Your task to perform on an android device: Open calendar and show me the second week of next month Image 0: 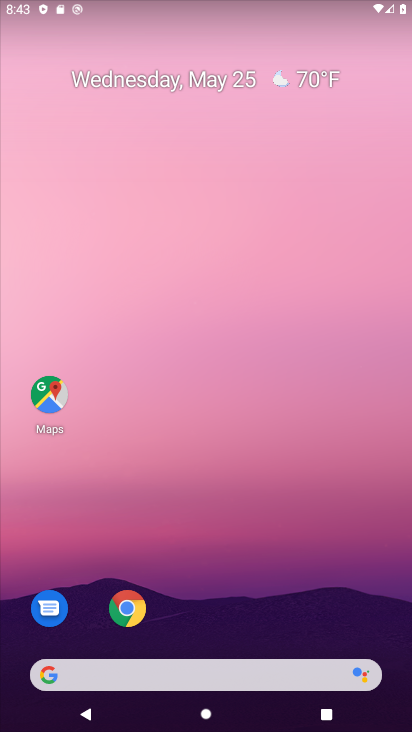
Step 0: drag from (286, 527) to (251, 61)
Your task to perform on an android device: Open calendar and show me the second week of next month Image 1: 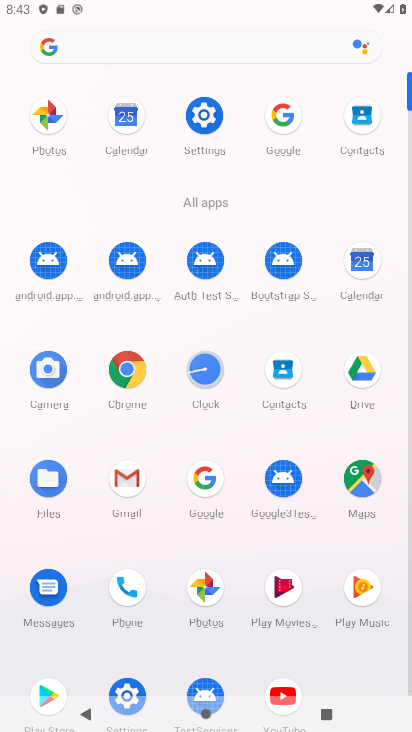
Step 1: click (135, 129)
Your task to perform on an android device: Open calendar and show me the second week of next month Image 2: 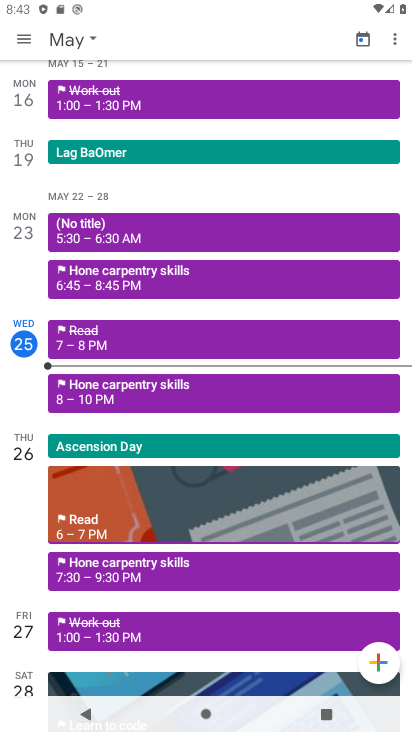
Step 2: click (25, 43)
Your task to perform on an android device: Open calendar and show me the second week of next month Image 3: 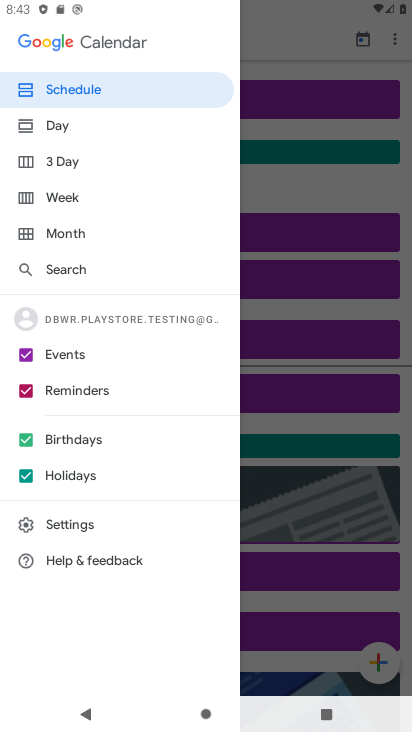
Step 3: click (78, 201)
Your task to perform on an android device: Open calendar and show me the second week of next month Image 4: 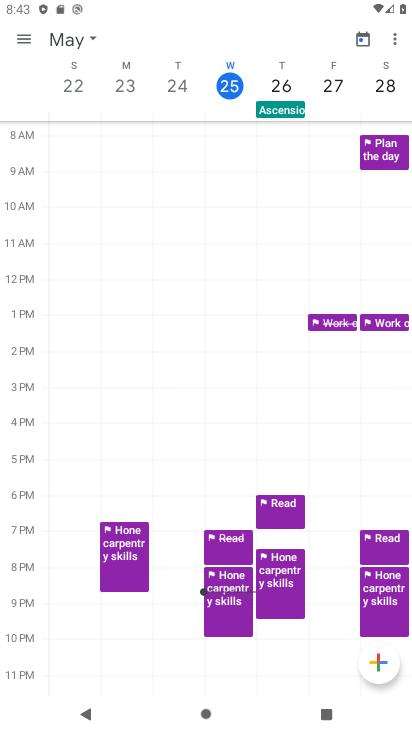
Step 4: click (86, 39)
Your task to perform on an android device: Open calendar and show me the second week of next month Image 5: 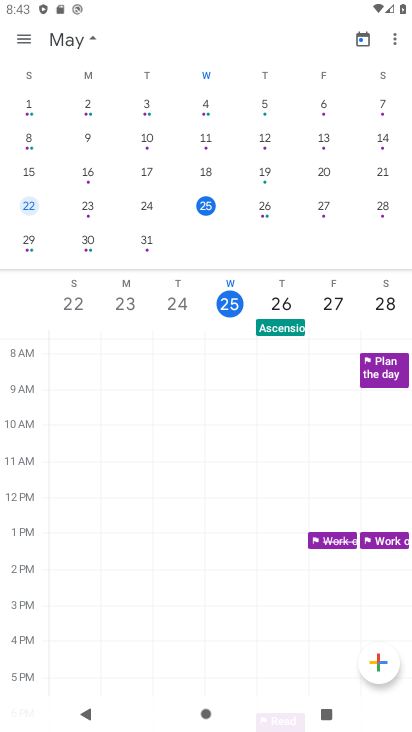
Step 5: drag from (350, 204) to (1, 195)
Your task to perform on an android device: Open calendar and show me the second week of next month Image 6: 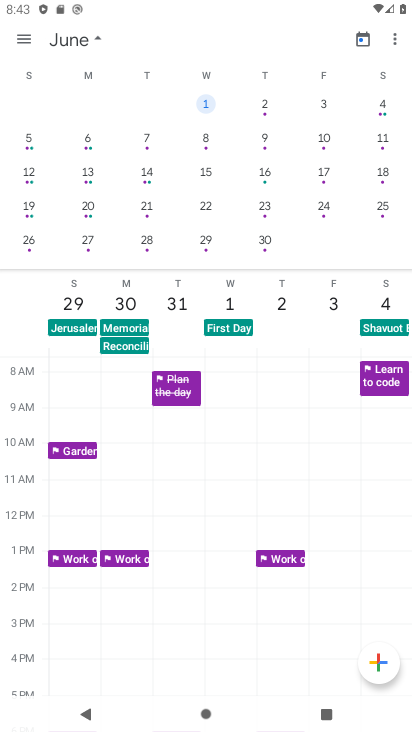
Step 6: click (36, 140)
Your task to perform on an android device: Open calendar and show me the second week of next month Image 7: 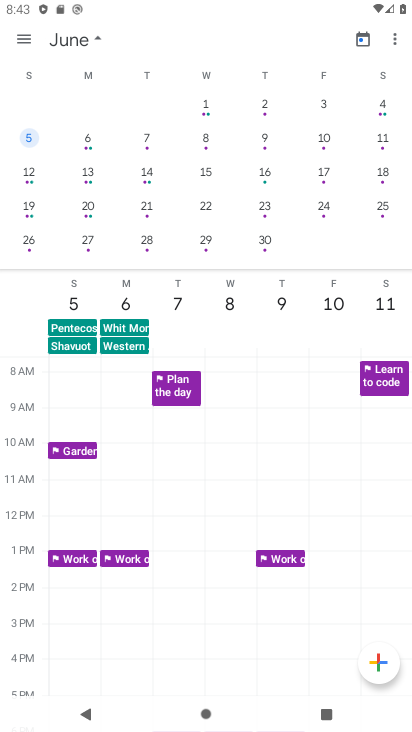
Step 7: task complete